Your task to perform on an android device: Open notification settings Image 0: 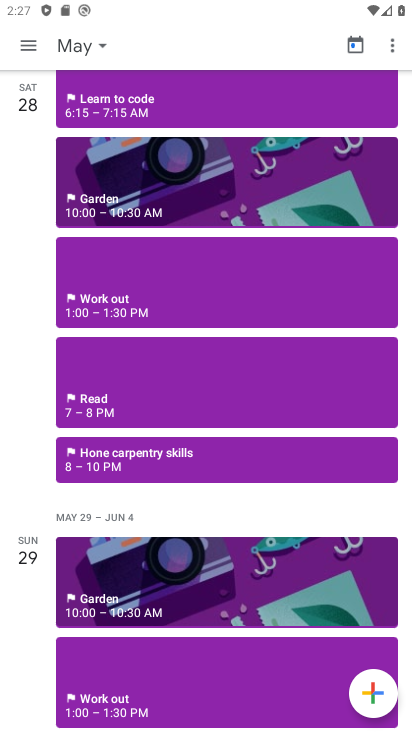
Step 0: press home button
Your task to perform on an android device: Open notification settings Image 1: 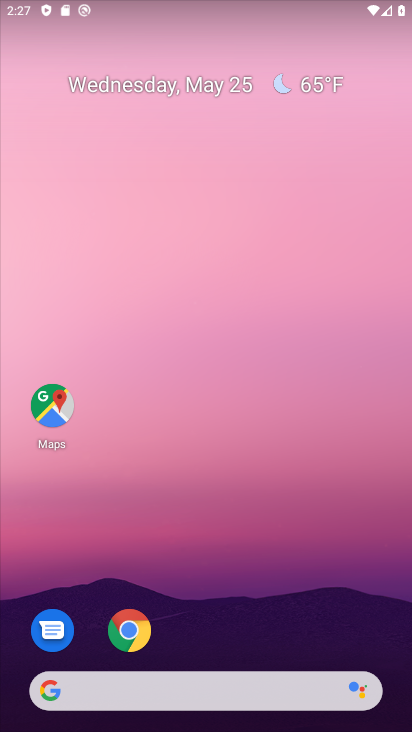
Step 1: drag from (214, 650) to (203, 134)
Your task to perform on an android device: Open notification settings Image 2: 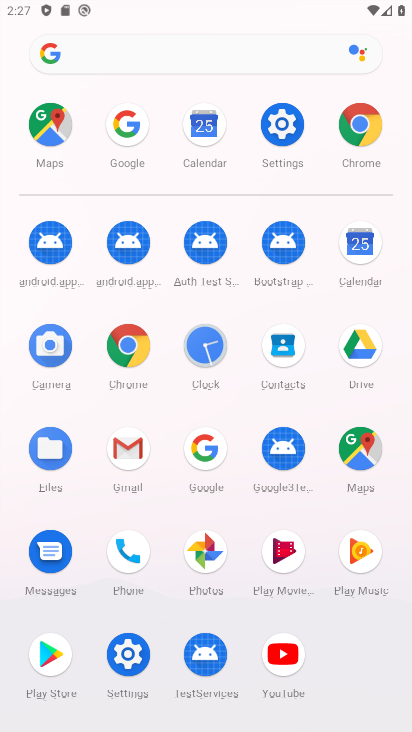
Step 2: click (282, 118)
Your task to perform on an android device: Open notification settings Image 3: 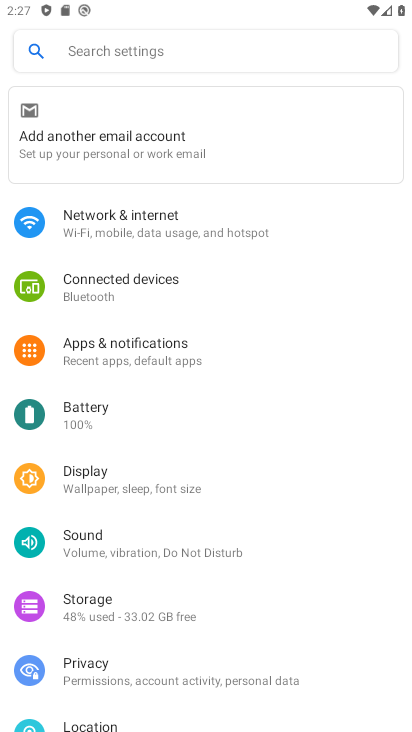
Step 3: click (200, 338)
Your task to perform on an android device: Open notification settings Image 4: 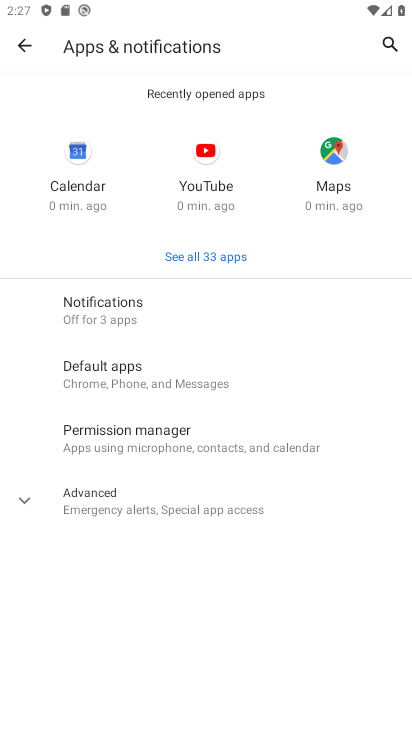
Step 4: click (158, 312)
Your task to perform on an android device: Open notification settings Image 5: 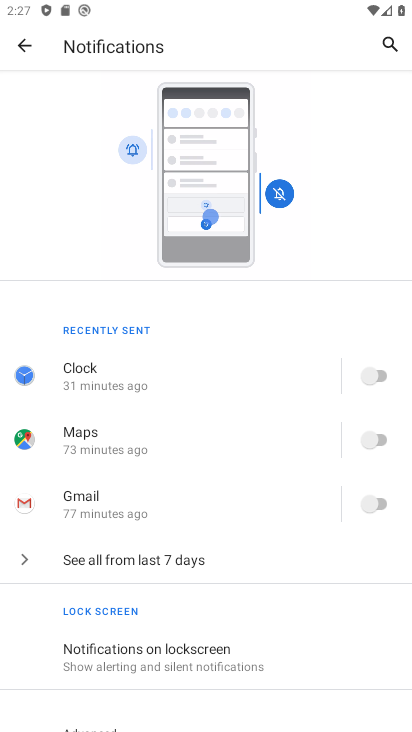
Step 5: drag from (261, 656) to (267, 146)
Your task to perform on an android device: Open notification settings Image 6: 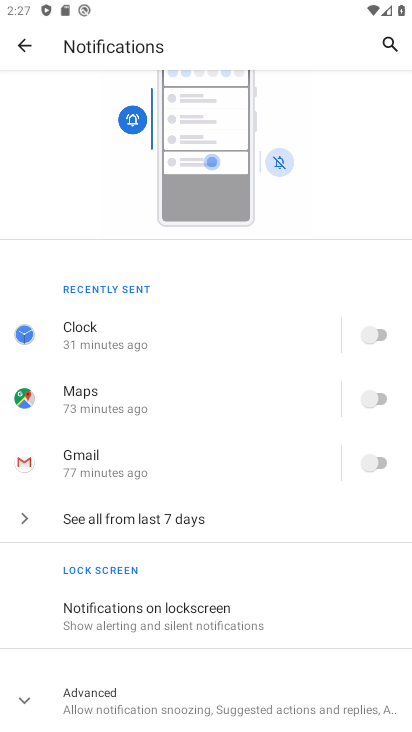
Step 6: click (18, 699)
Your task to perform on an android device: Open notification settings Image 7: 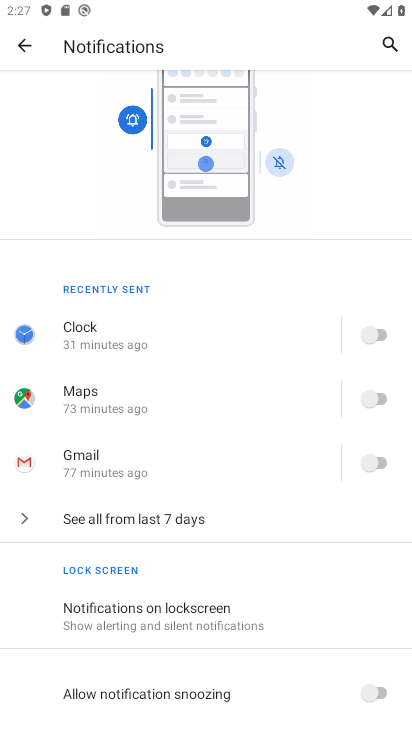
Step 7: task complete